Your task to perform on an android device: delete browsing data in the chrome app Image 0: 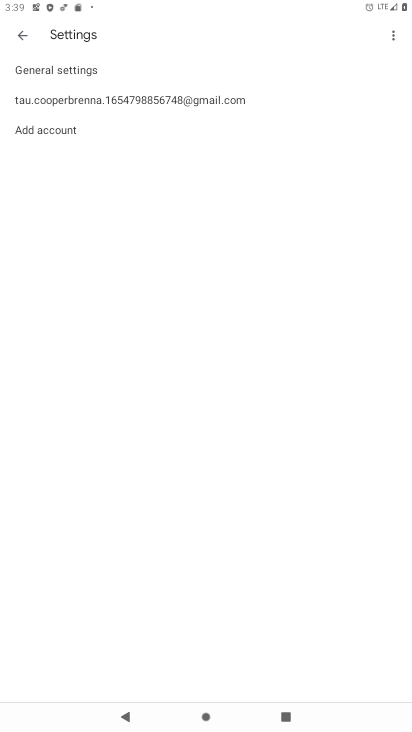
Step 0: press home button
Your task to perform on an android device: delete browsing data in the chrome app Image 1: 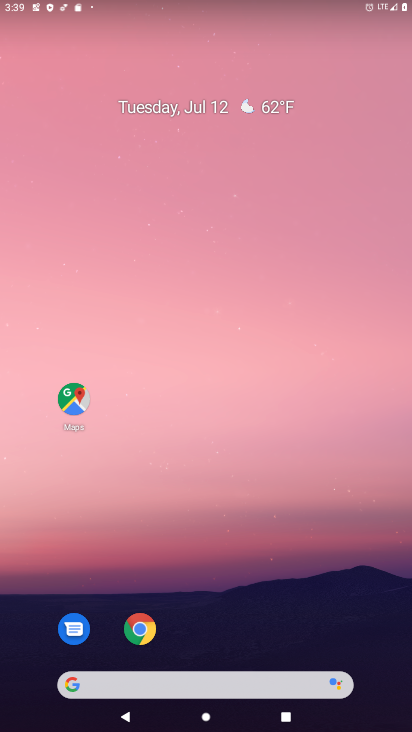
Step 1: drag from (240, 680) to (213, 245)
Your task to perform on an android device: delete browsing data in the chrome app Image 2: 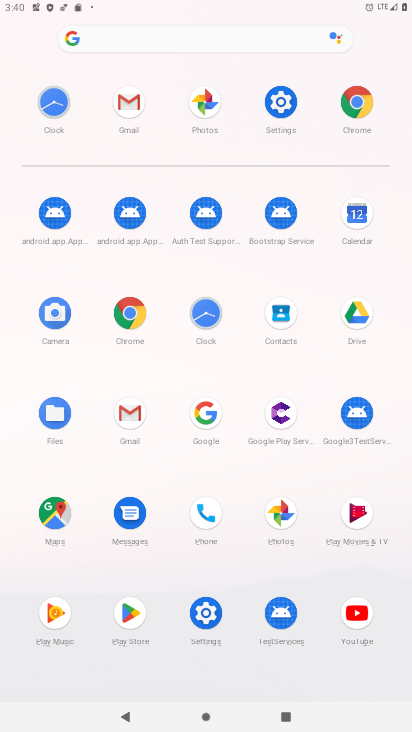
Step 2: click (141, 319)
Your task to perform on an android device: delete browsing data in the chrome app Image 3: 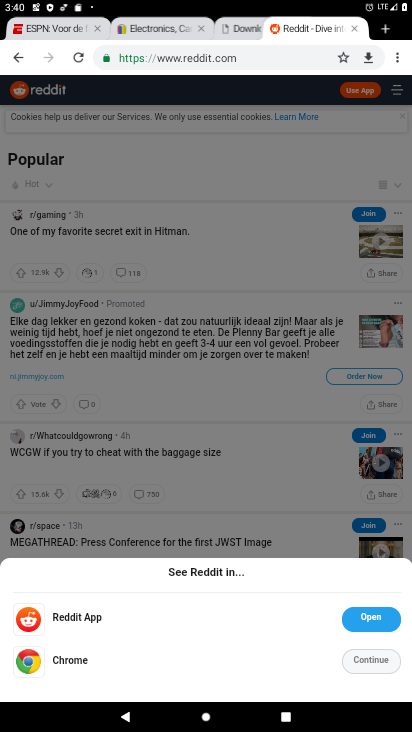
Step 3: click (394, 57)
Your task to perform on an android device: delete browsing data in the chrome app Image 4: 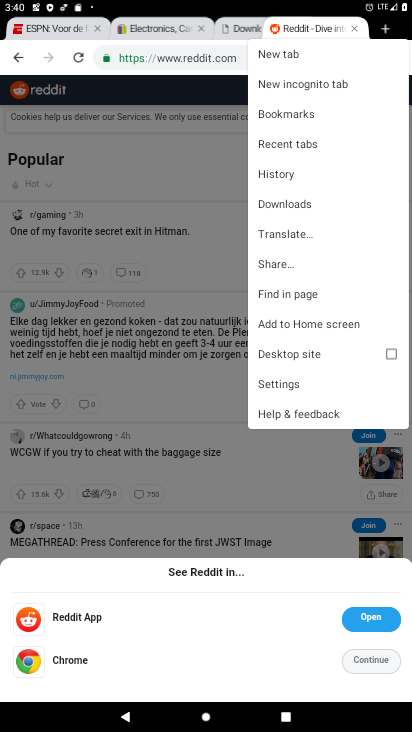
Step 4: click (276, 387)
Your task to perform on an android device: delete browsing data in the chrome app Image 5: 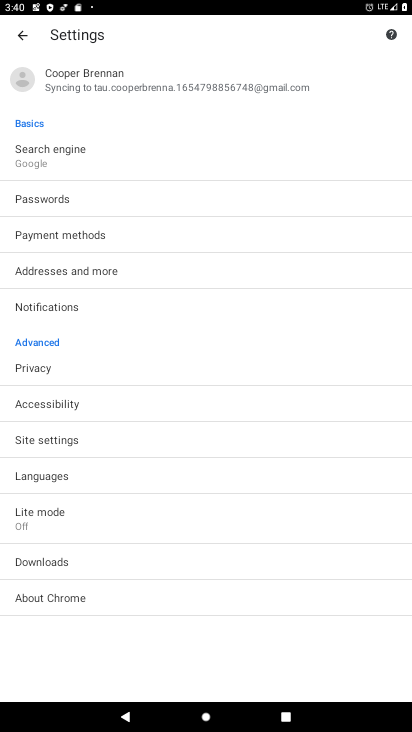
Step 5: click (28, 375)
Your task to perform on an android device: delete browsing data in the chrome app Image 6: 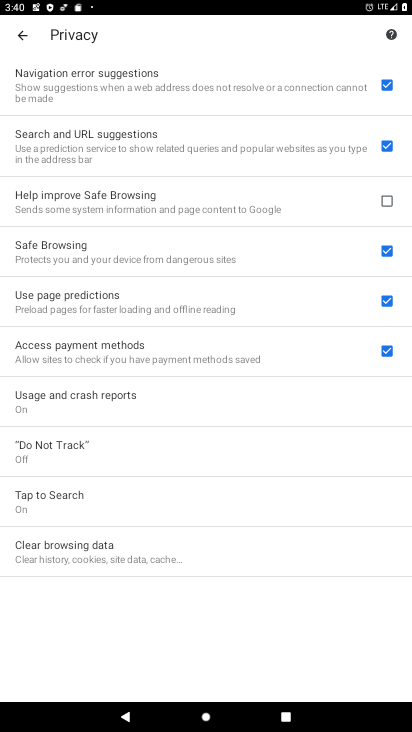
Step 6: click (100, 551)
Your task to perform on an android device: delete browsing data in the chrome app Image 7: 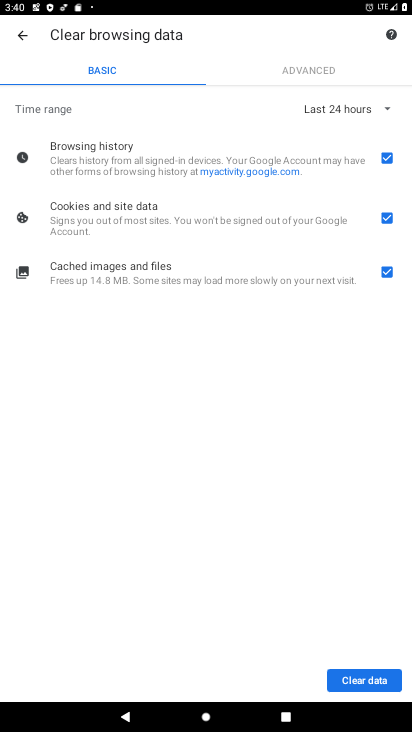
Step 7: click (353, 681)
Your task to perform on an android device: delete browsing data in the chrome app Image 8: 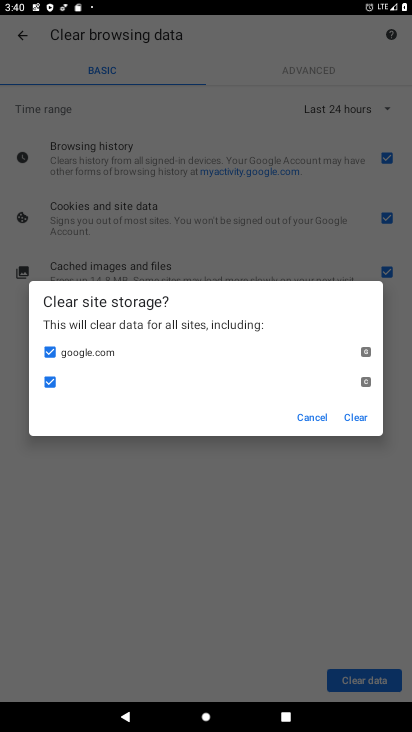
Step 8: click (361, 412)
Your task to perform on an android device: delete browsing data in the chrome app Image 9: 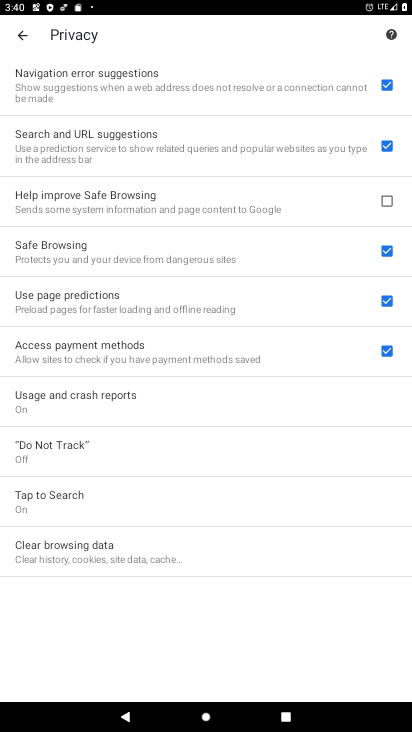
Step 9: task complete